Your task to perform on an android device: turn on notifications settings in the gmail app Image 0: 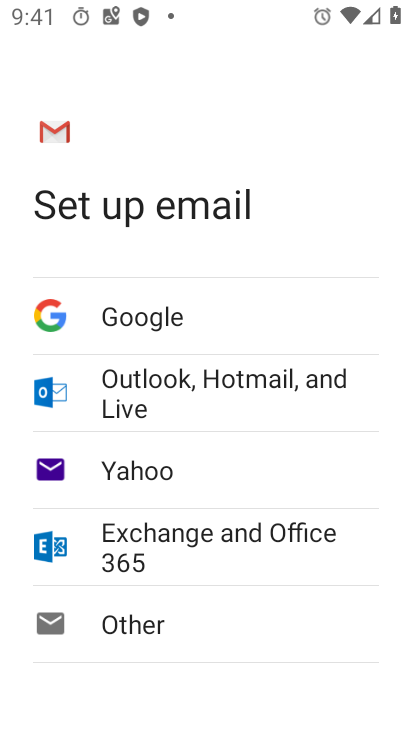
Step 0: press back button
Your task to perform on an android device: turn on notifications settings in the gmail app Image 1: 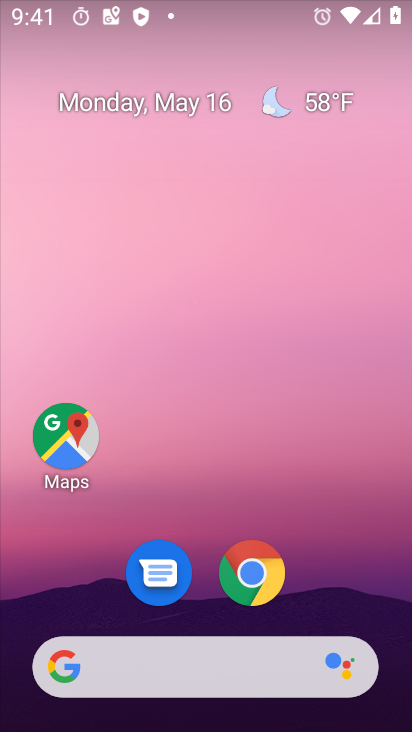
Step 1: drag from (331, 624) to (121, 313)
Your task to perform on an android device: turn on notifications settings in the gmail app Image 2: 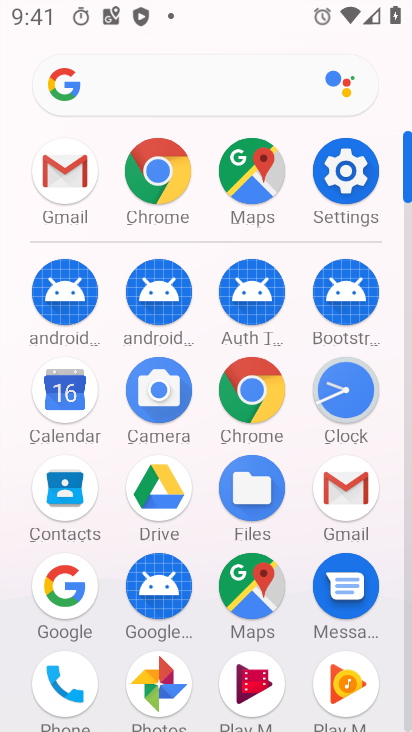
Step 2: click (345, 490)
Your task to perform on an android device: turn on notifications settings in the gmail app Image 3: 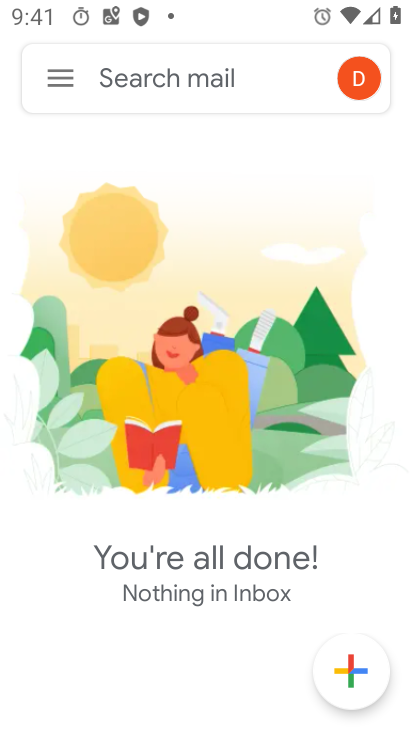
Step 3: click (40, 87)
Your task to perform on an android device: turn on notifications settings in the gmail app Image 4: 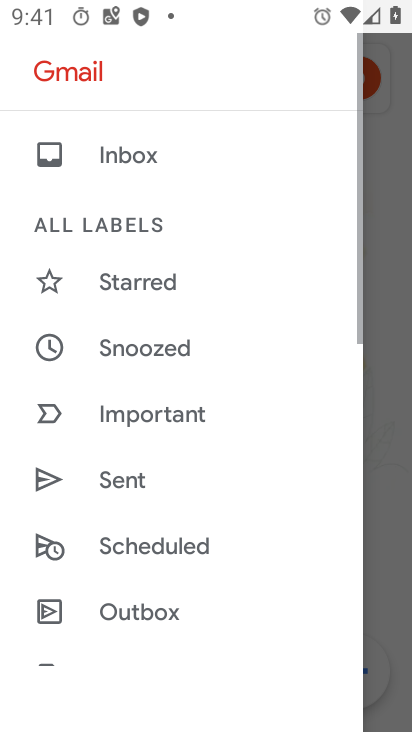
Step 4: drag from (180, 461) to (239, 53)
Your task to perform on an android device: turn on notifications settings in the gmail app Image 5: 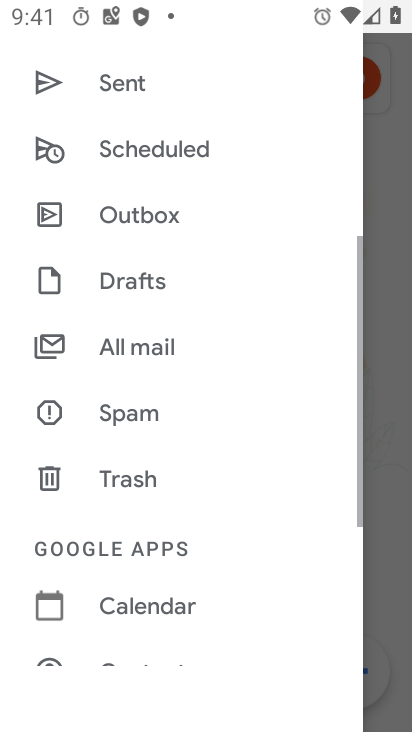
Step 5: drag from (203, 454) to (150, 113)
Your task to perform on an android device: turn on notifications settings in the gmail app Image 6: 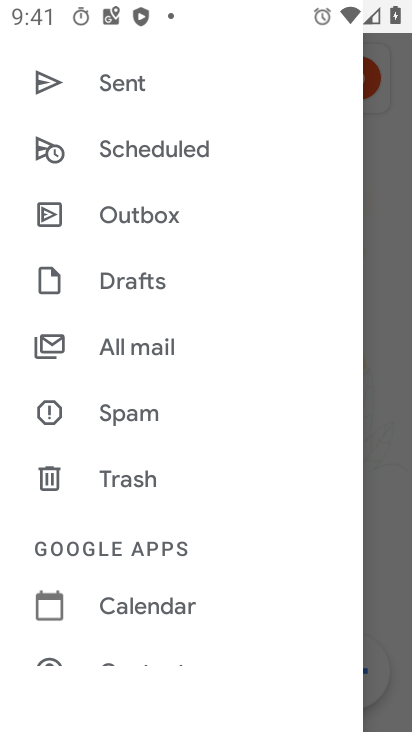
Step 6: drag from (144, 536) to (60, 184)
Your task to perform on an android device: turn on notifications settings in the gmail app Image 7: 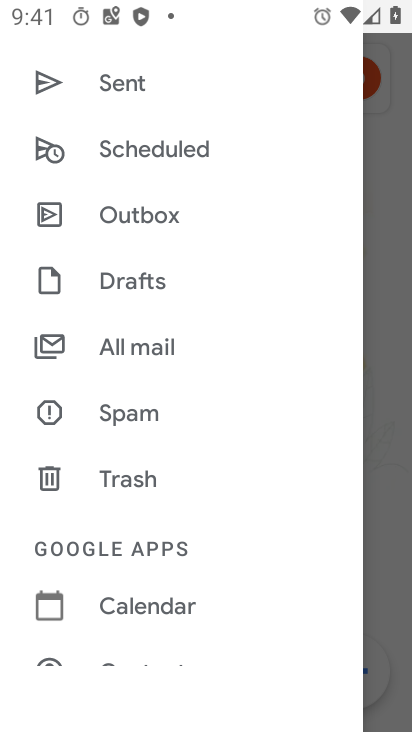
Step 7: drag from (156, 411) to (185, 138)
Your task to perform on an android device: turn on notifications settings in the gmail app Image 8: 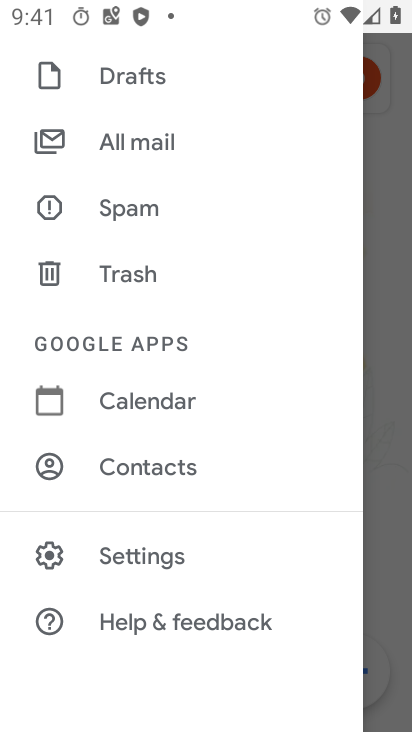
Step 8: drag from (85, 633) to (103, 568)
Your task to perform on an android device: turn on notifications settings in the gmail app Image 9: 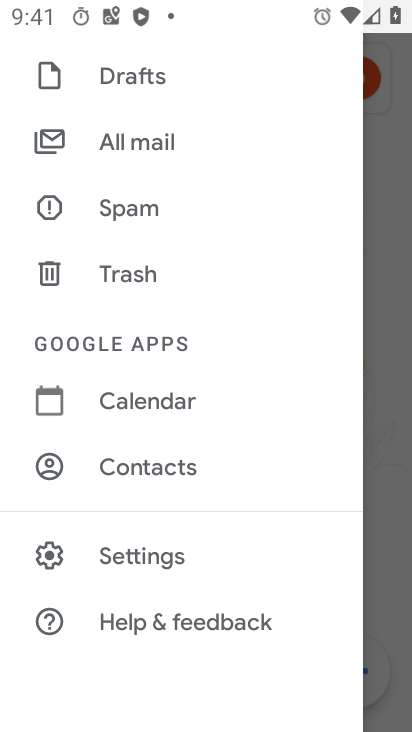
Step 9: click (144, 556)
Your task to perform on an android device: turn on notifications settings in the gmail app Image 10: 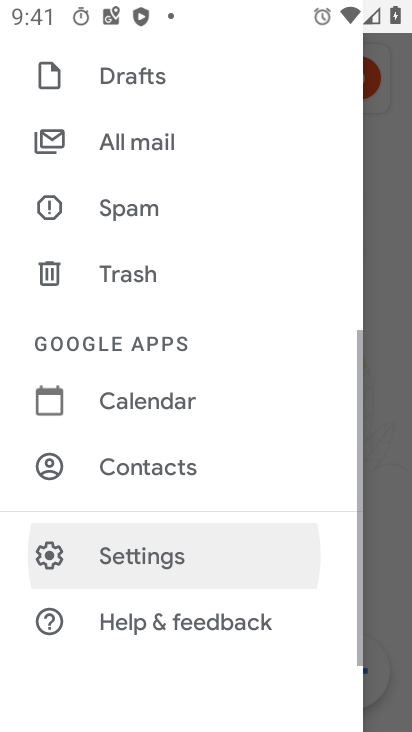
Step 10: click (148, 552)
Your task to perform on an android device: turn on notifications settings in the gmail app Image 11: 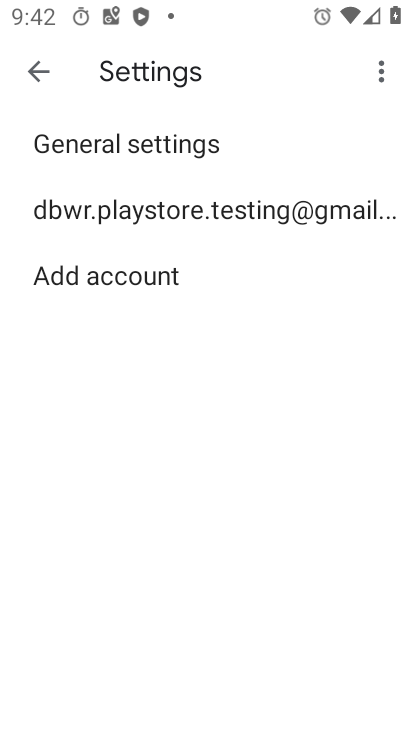
Step 11: click (175, 208)
Your task to perform on an android device: turn on notifications settings in the gmail app Image 12: 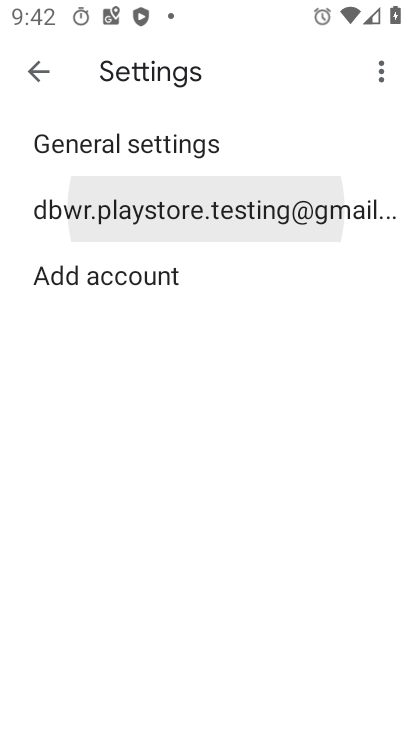
Step 12: click (175, 208)
Your task to perform on an android device: turn on notifications settings in the gmail app Image 13: 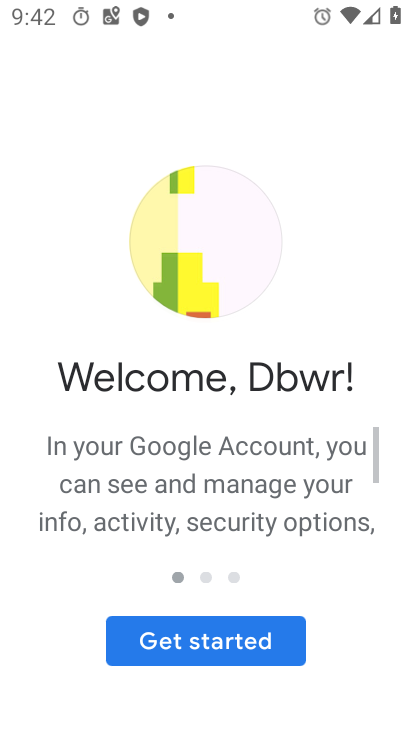
Step 13: press back button
Your task to perform on an android device: turn on notifications settings in the gmail app Image 14: 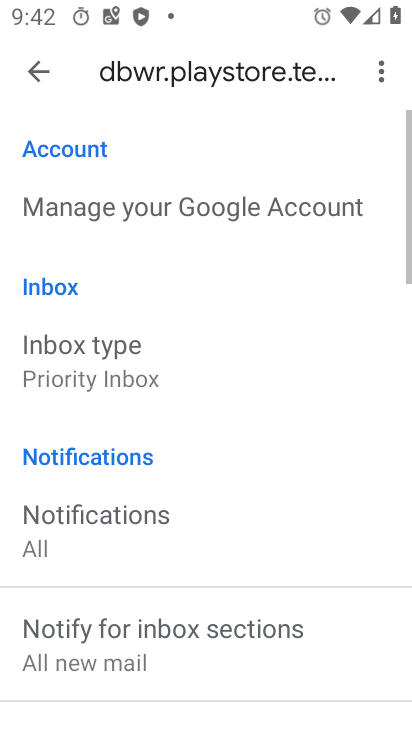
Step 14: click (130, 656)
Your task to perform on an android device: turn on notifications settings in the gmail app Image 15: 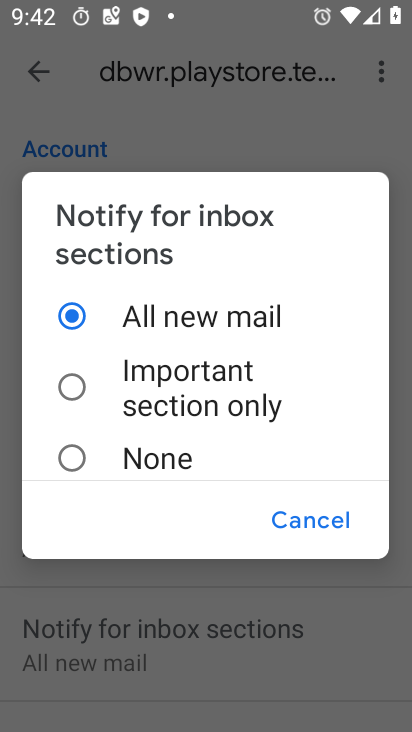
Step 15: click (313, 529)
Your task to perform on an android device: turn on notifications settings in the gmail app Image 16: 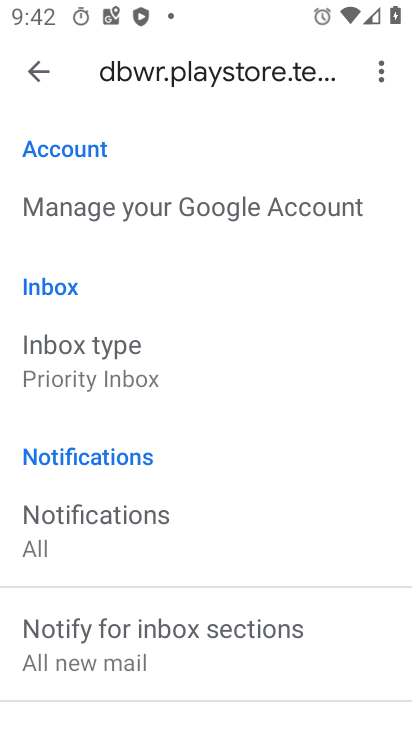
Step 16: click (90, 533)
Your task to perform on an android device: turn on notifications settings in the gmail app Image 17: 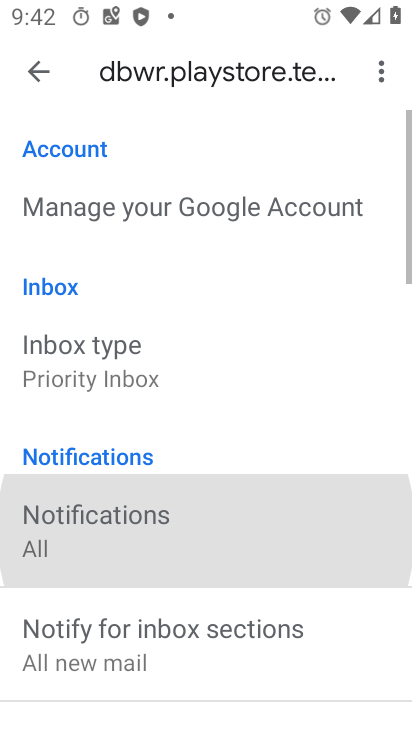
Step 17: click (90, 533)
Your task to perform on an android device: turn on notifications settings in the gmail app Image 18: 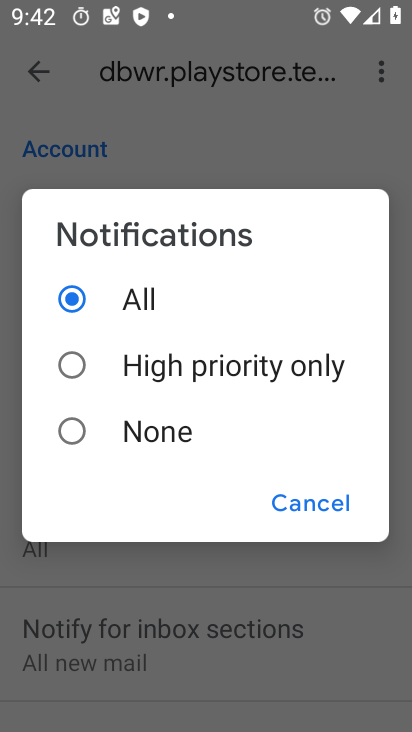
Step 18: click (328, 495)
Your task to perform on an android device: turn on notifications settings in the gmail app Image 19: 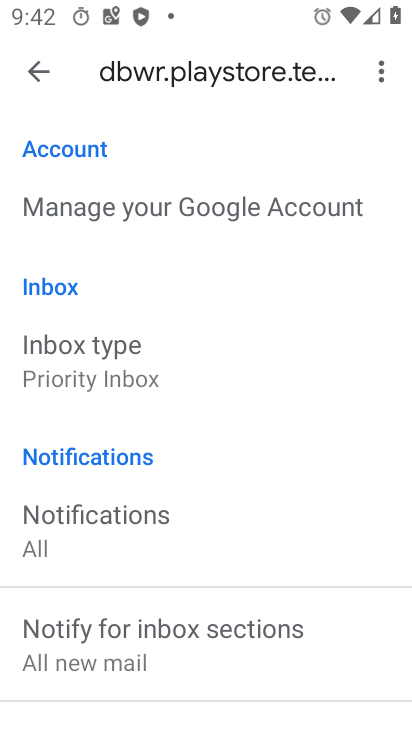
Step 19: task complete